Your task to perform on an android device: find photos in the google photos app Image 0: 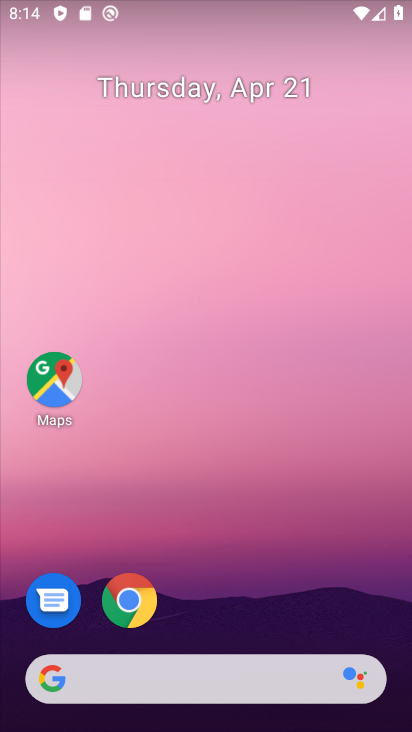
Step 0: drag from (114, 380) to (240, 74)
Your task to perform on an android device: find photos in the google photos app Image 1: 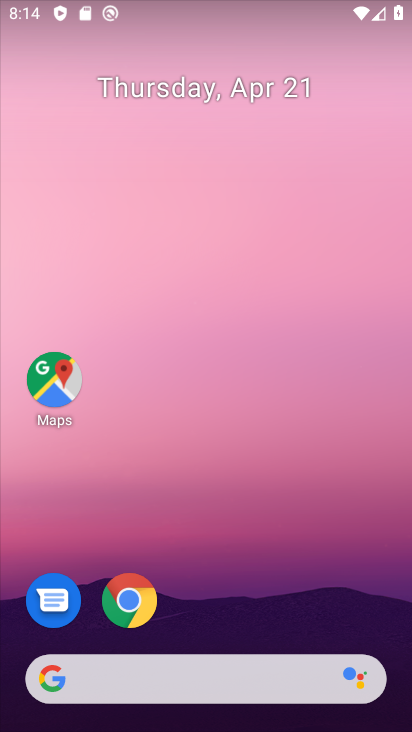
Step 1: drag from (14, 579) to (14, 620)
Your task to perform on an android device: find photos in the google photos app Image 2: 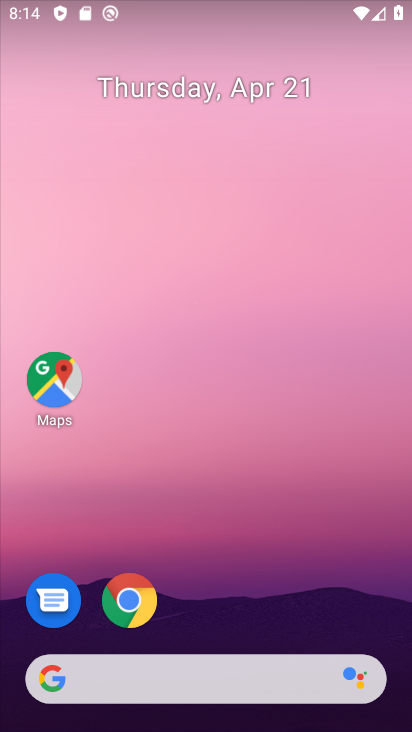
Step 2: drag from (72, 400) to (169, 155)
Your task to perform on an android device: find photos in the google photos app Image 3: 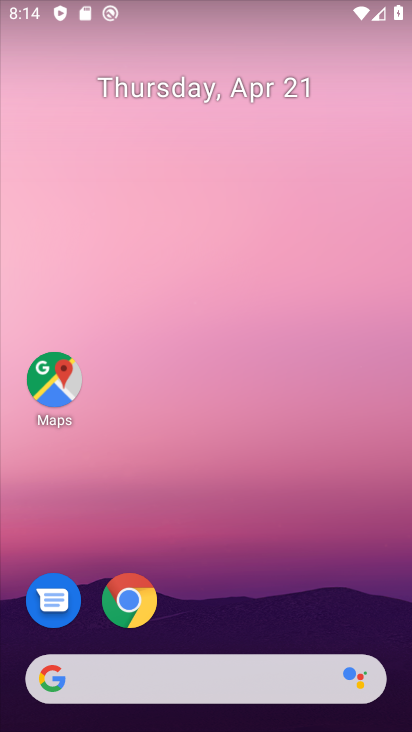
Step 3: drag from (26, 648) to (401, 74)
Your task to perform on an android device: find photos in the google photos app Image 4: 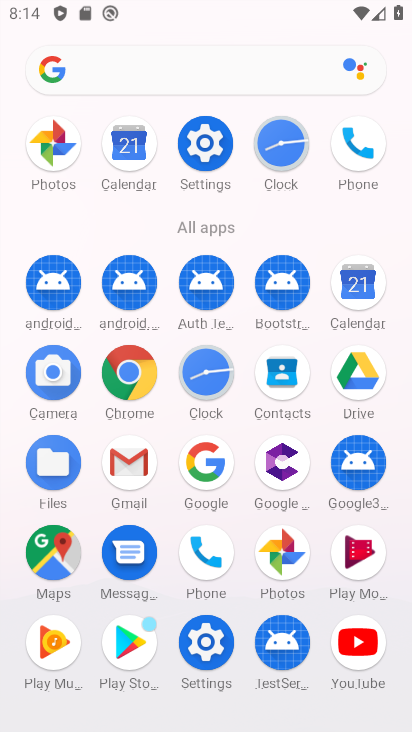
Step 4: click (285, 553)
Your task to perform on an android device: find photos in the google photos app Image 5: 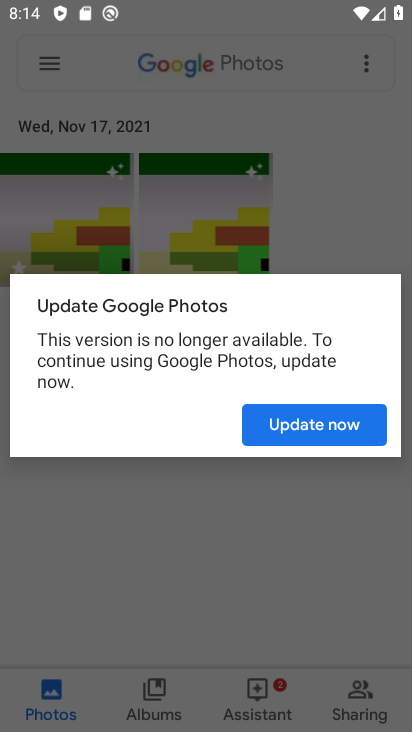
Step 5: click (282, 414)
Your task to perform on an android device: find photos in the google photos app Image 6: 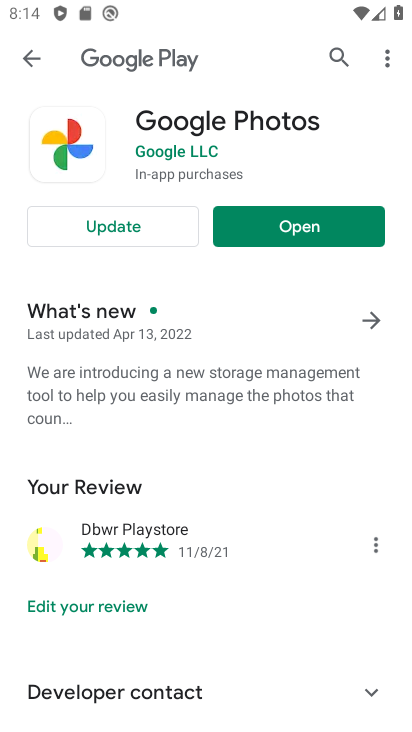
Step 6: click (239, 228)
Your task to perform on an android device: find photos in the google photos app Image 7: 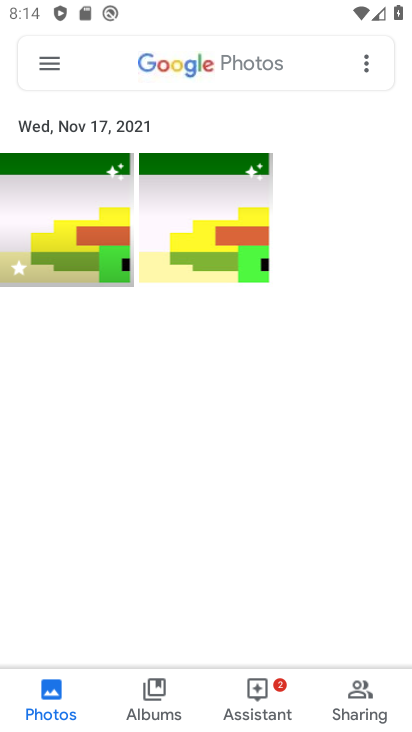
Step 7: click (33, 703)
Your task to perform on an android device: find photos in the google photos app Image 8: 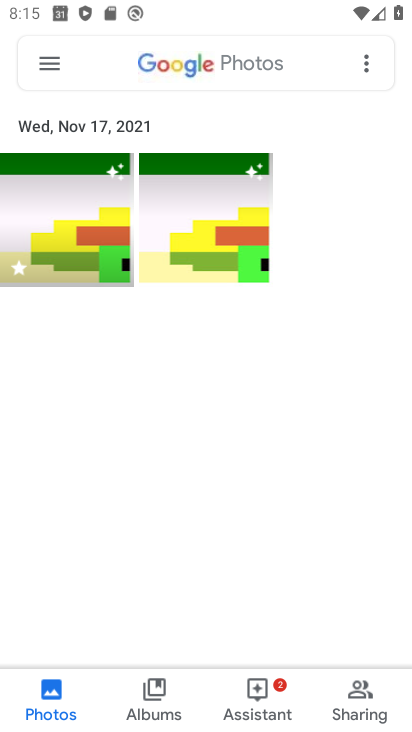
Step 8: task complete